Your task to perform on an android device: turn on sleep mode Image 0: 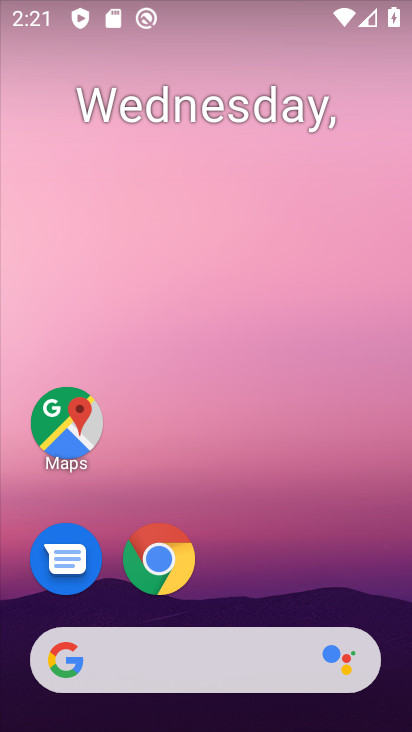
Step 0: drag from (216, 576) to (264, 3)
Your task to perform on an android device: turn on sleep mode Image 1: 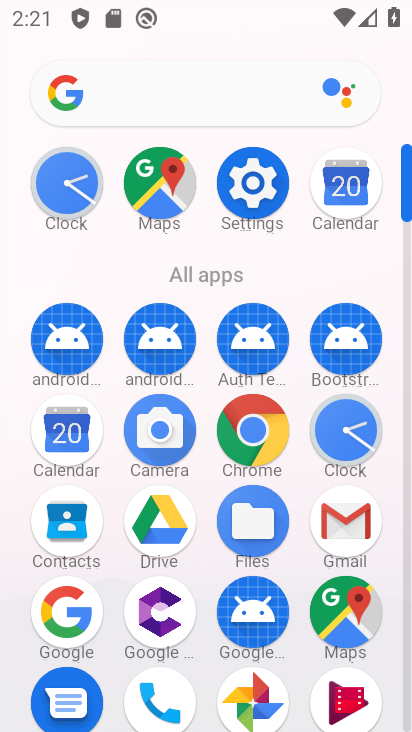
Step 1: click (253, 201)
Your task to perform on an android device: turn on sleep mode Image 2: 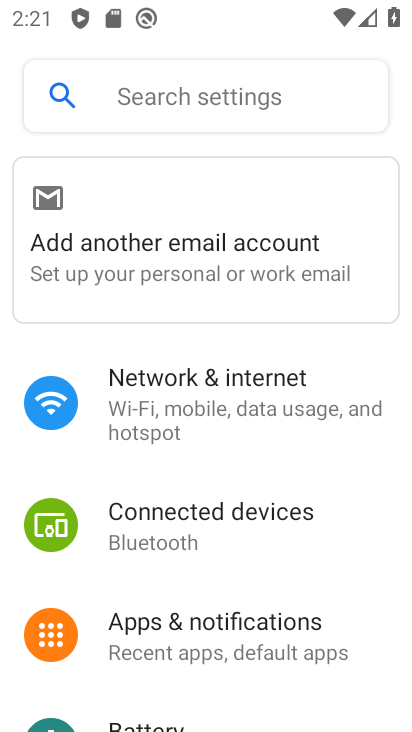
Step 2: click (163, 102)
Your task to perform on an android device: turn on sleep mode Image 3: 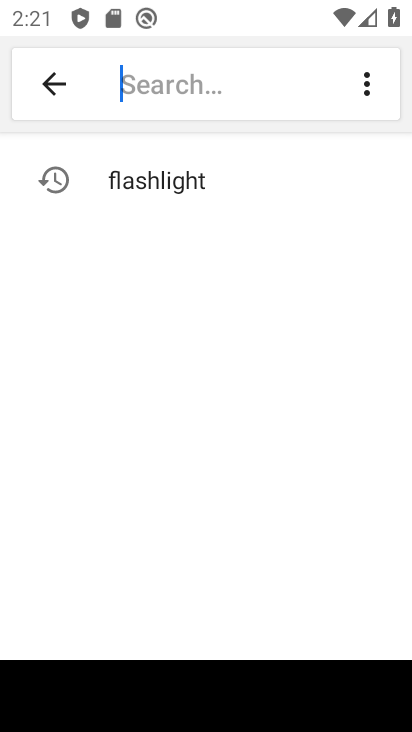
Step 3: type "sleep mode"
Your task to perform on an android device: turn on sleep mode Image 4: 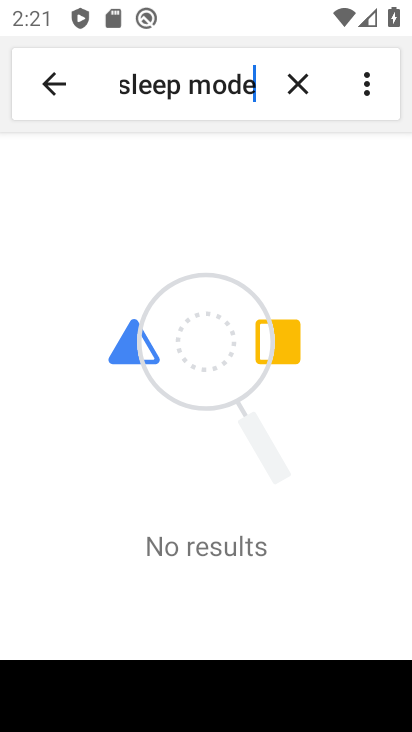
Step 4: task complete